Your task to perform on an android device: move a message to another label in the gmail app Image 0: 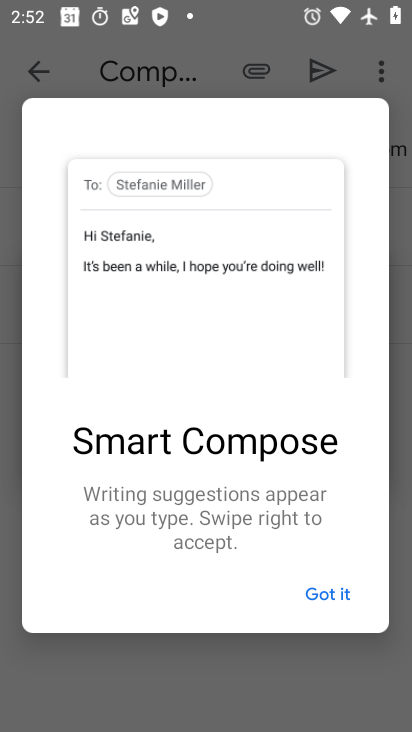
Step 0: press home button
Your task to perform on an android device: move a message to another label in the gmail app Image 1: 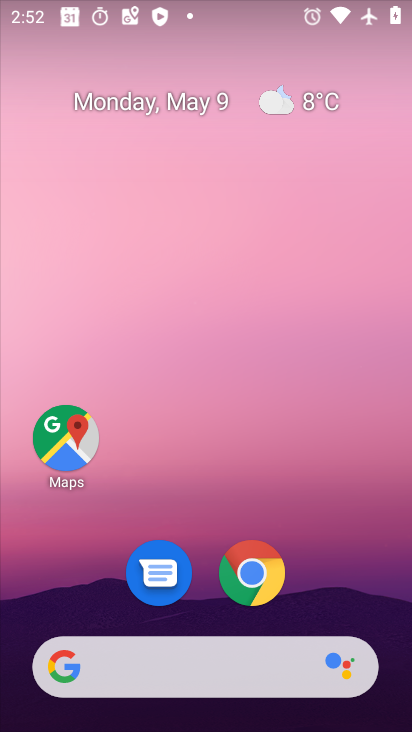
Step 1: drag from (178, 651) to (298, 297)
Your task to perform on an android device: move a message to another label in the gmail app Image 2: 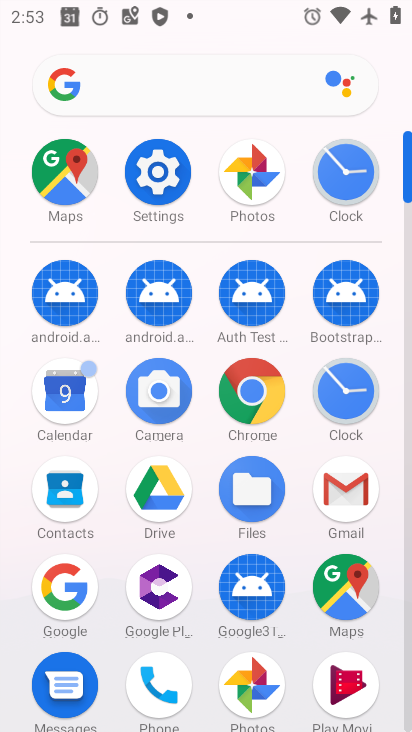
Step 2: click (336, 491)
Your task to perform on an android device: move a message to another label in the gmail app Image 3: 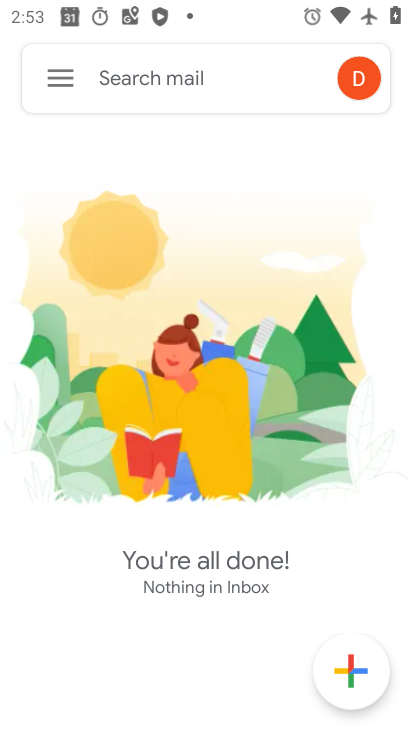
Step 3: task complete